Your task to perform on an android device: Go to CNN.com Image 0: 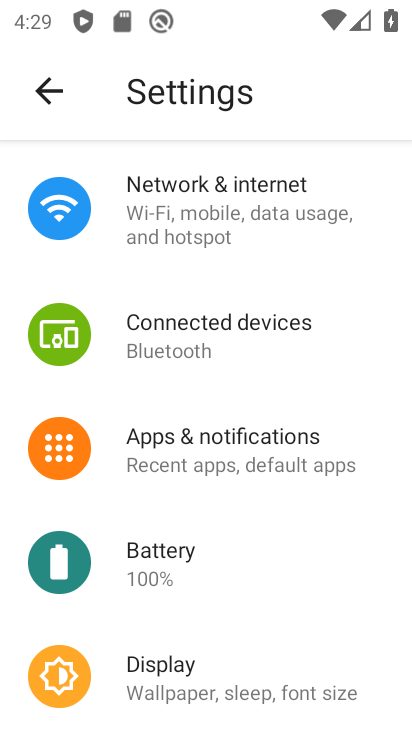
Step 0: press home button
Your task to perform on an android device: Go to CNN.com Image 1: 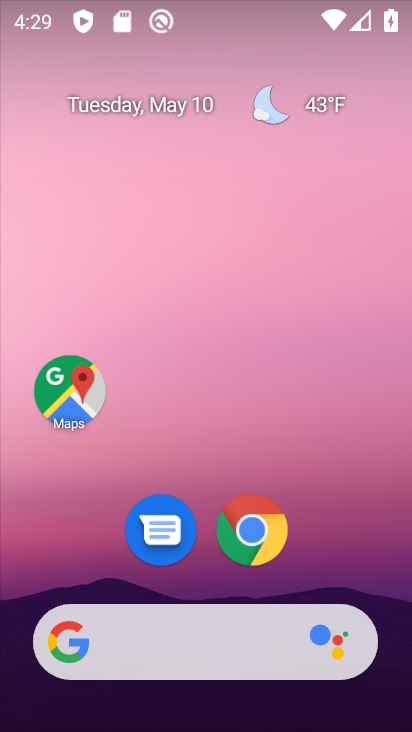
Step 1: click (252, 539)
Your task to perform on an android device: Go to CNN.com Image 2: 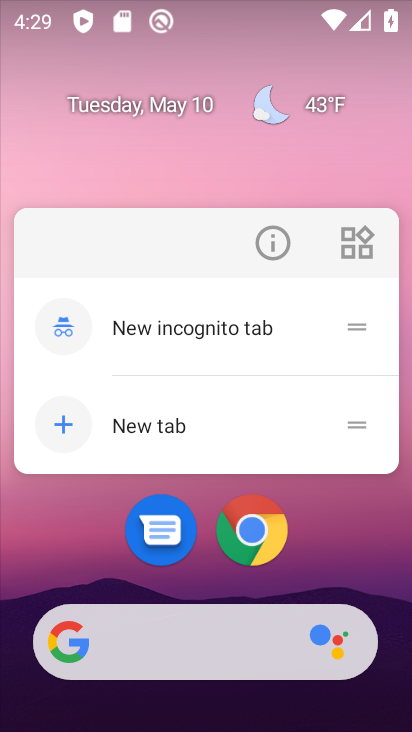
Step 2: click (251, 534)
Your task to perform on an android device: Go to CNN.com Image 3: 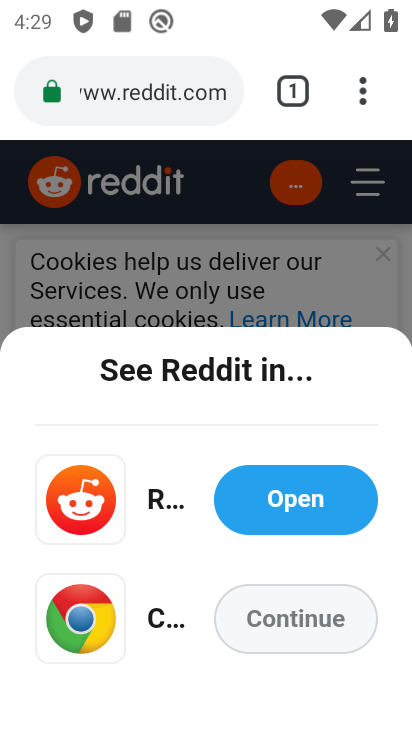
Step 3: click (293, 97)
Your task to perform on an android device: Go to CNN.com Image 4: 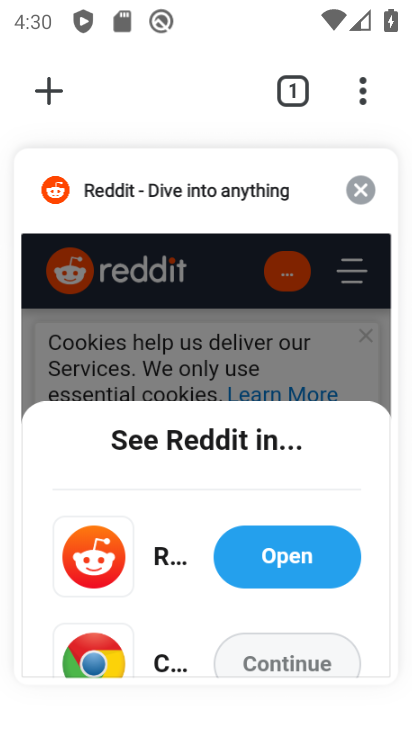
Step 4: click (292, 92)
Your task to perform on an android device: Go to CNN.com Image 5: 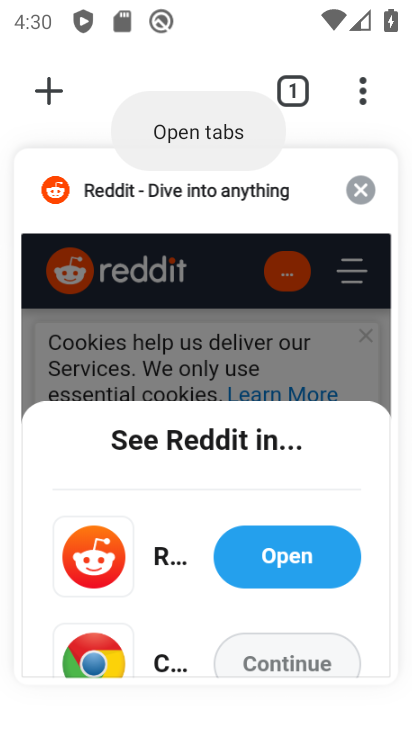
Step 5: click (66, 99)
Your task to perform on an android device: Go to CNN.com Image 6: 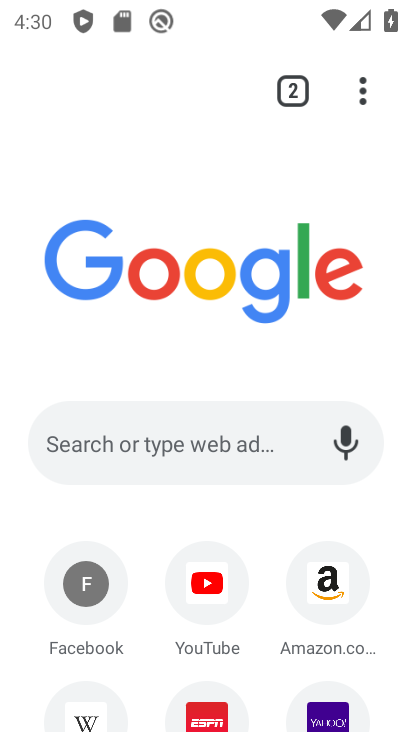
Step 6: click (150, 453)
Your task to perform on an android device: Go to CNN.com Image 7: 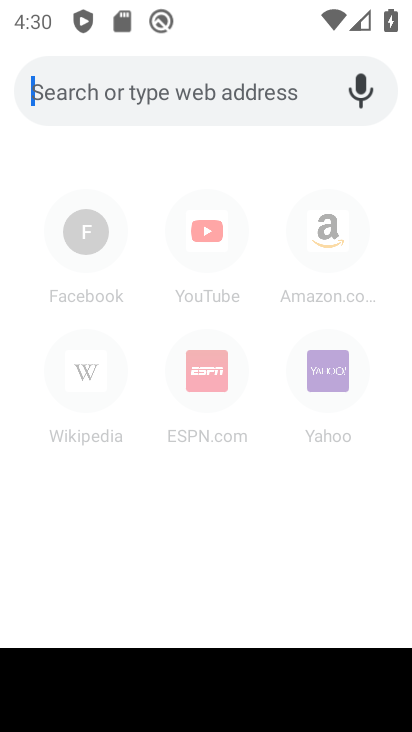
Step 7: type "cnn"
Your task to perform on an android device: Go to CNN.com Image 8: 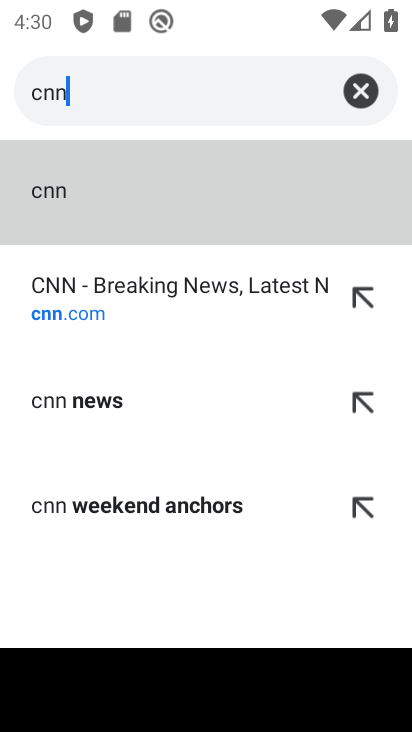
Step 8: click (105, 295)
Your task to perform on an android device: Go to CNN.com Image 9: 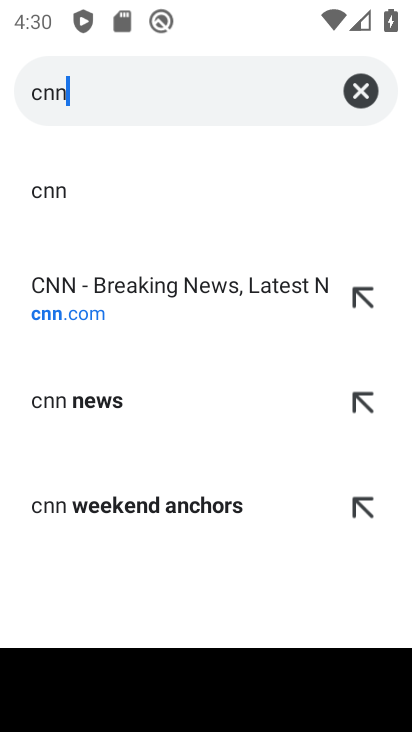
Step 9: click (72, 322)
Your task to perform on an android device: Go to CNN.com Image 10: 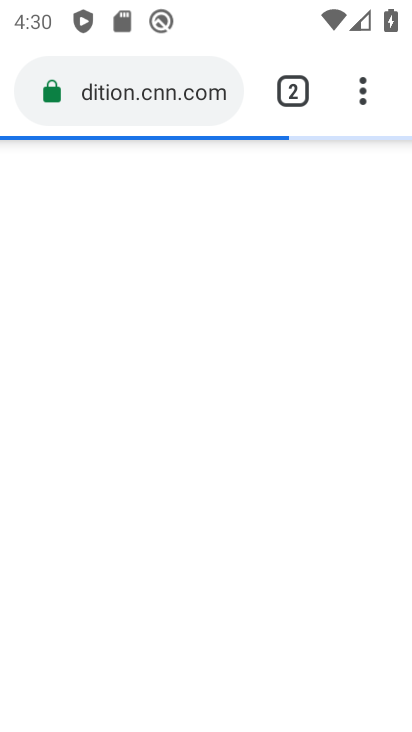
Step 10: task complete